Your task to perform on an android device: change the clock display to analog Image 0: 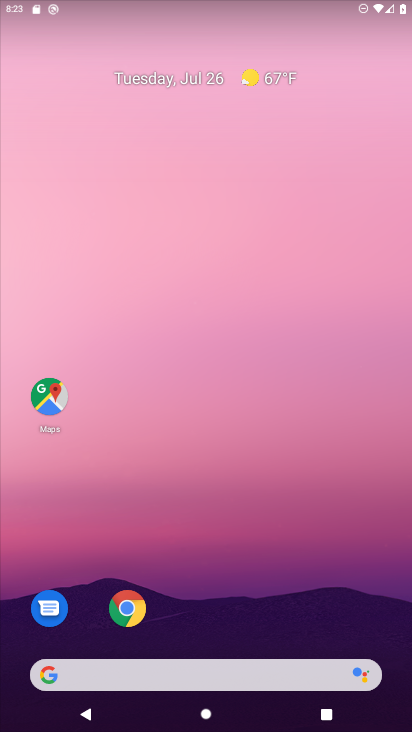
Step 0: drag from (226, 633) to (334, 5)
Your task to perform on an android device: change the clock display to analog Image 1: 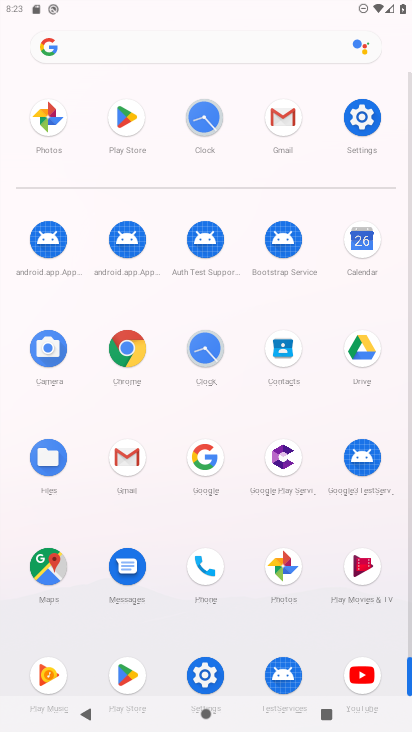
Step 1: click (216, 349)
Your task to perform on an android device: change the clock display to analog Image 2: 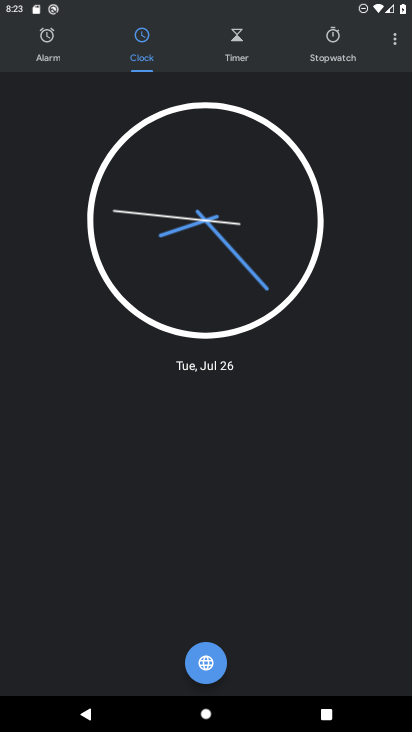
Step 2: click (399, 42)
Your task to perform on an android device: change the clock display to analog Image 3: 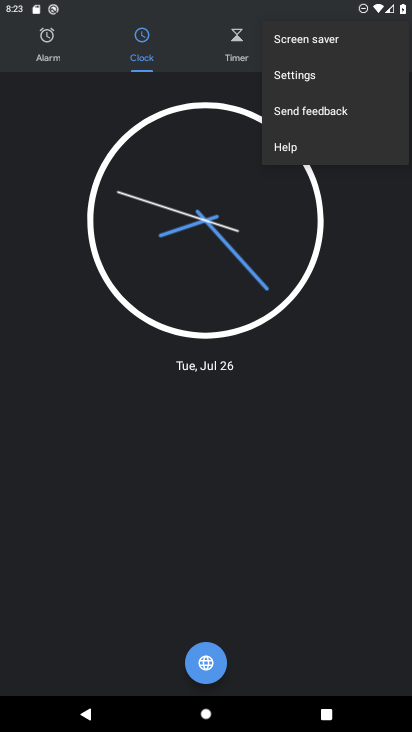
Step 3: click (315, 85)
Your task to perform on an android device: change the clock display to analog Image 4: 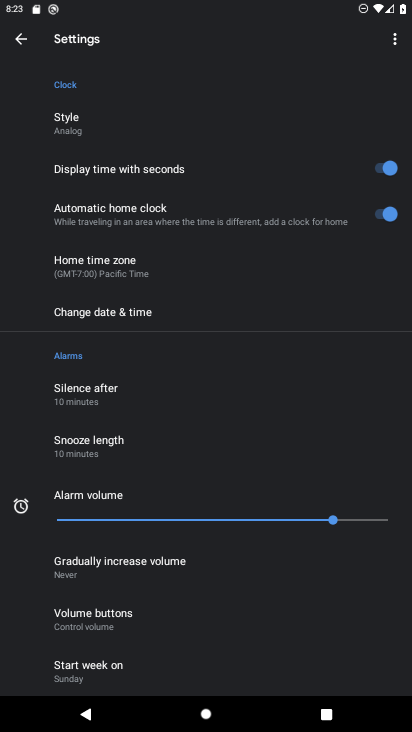
Step 4: click (85, 123)
Your task to perform on an android device: change the clock display to analog Image 5: 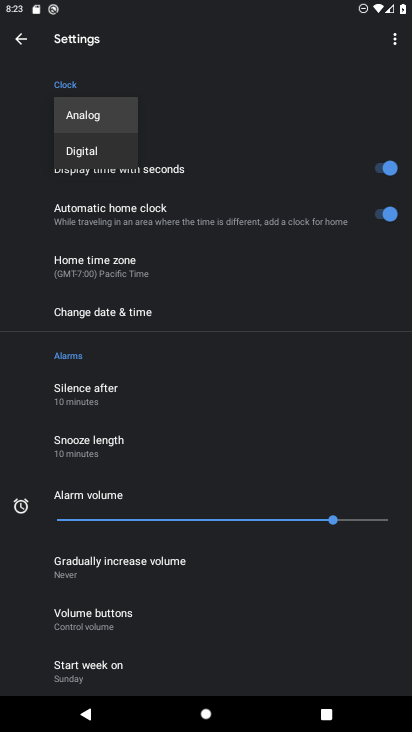
Step 5: task complete